Your task to perform on an android device: set the timer Image 0: 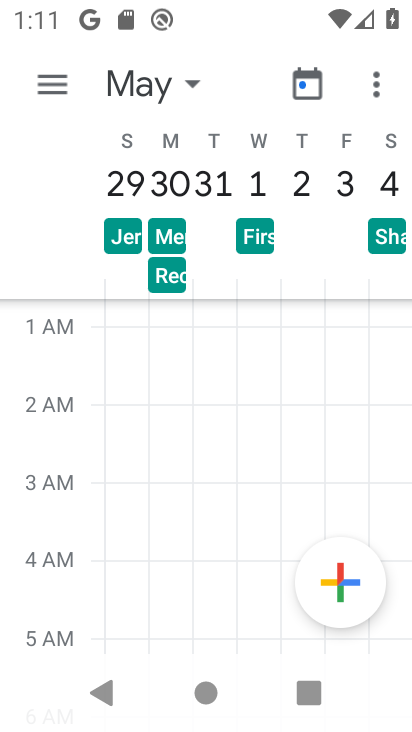
Step 0: press home button
Your task to perform on an android device: set the timer Image 1: 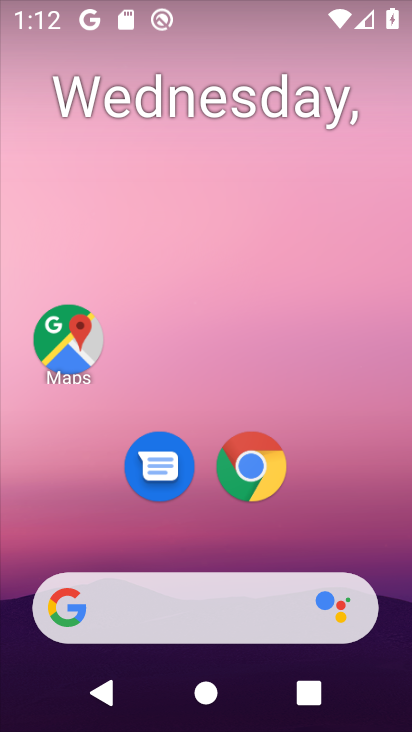
Step 1: drag from (312, 506) to (284, 191)
Your task to perform on an android device: set the timer Image 2: 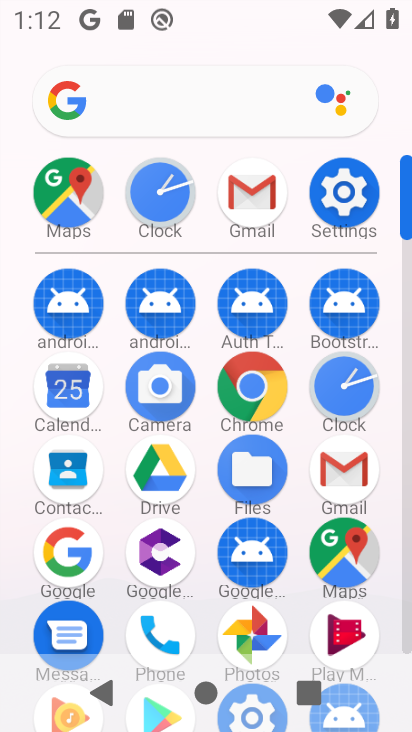
Step 2: click (164, 177)
Your task to perform on an android device: set the timer Image 3: 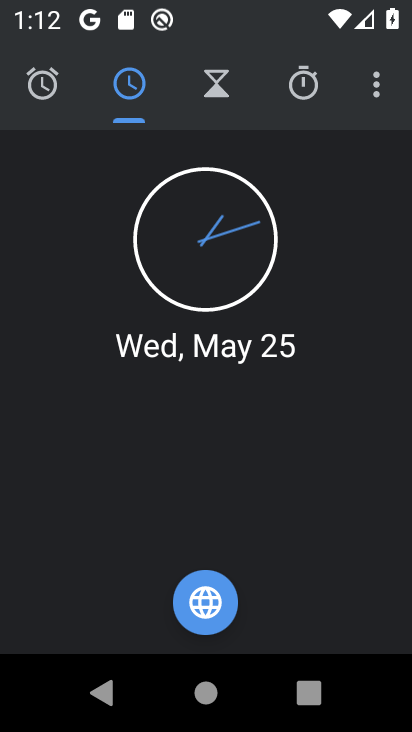
Step 3: click (58, 88)
Your task to perform on an android device: set the timer Image 4: 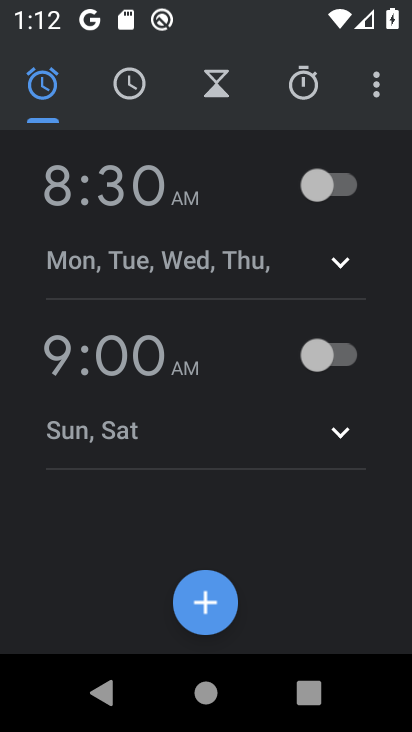
Step 4: click (292, 95)
Your task to perform on an android device: set the timer Image 5: 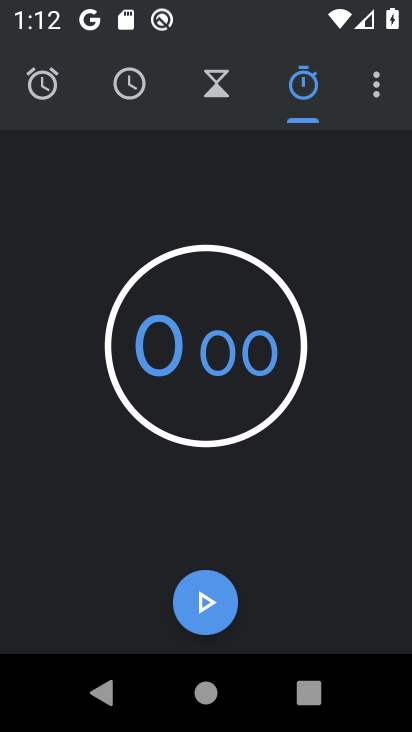
Step 5: click (184, 351)
Your task to perform on an android device: set the timer Image 6: 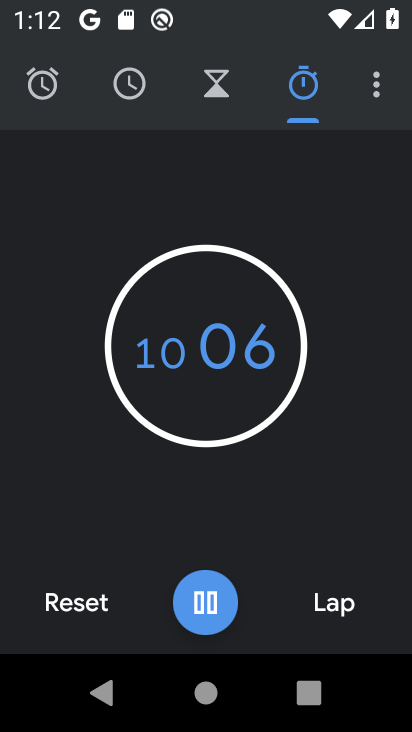
Step 6: task complete